Your task to perform on an android device: Go to ESPN.com Image 0: 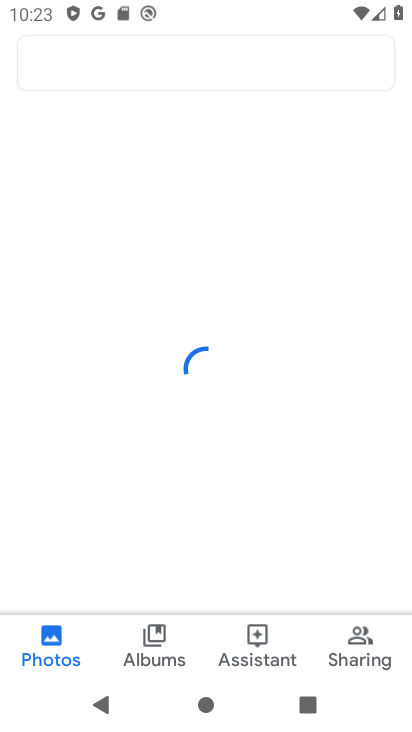
Step 0: press back button
Your task to perform on an android device: Go to ESPN.com Image 1: 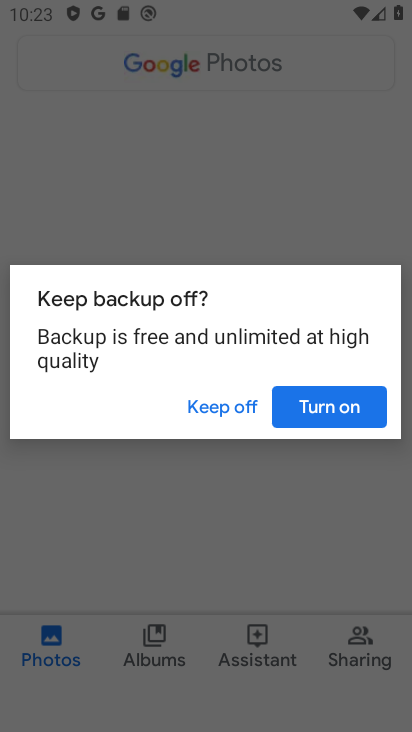
Step 1: press back button
Your task to perform on an android device: Go to ESPN.com Image 2: 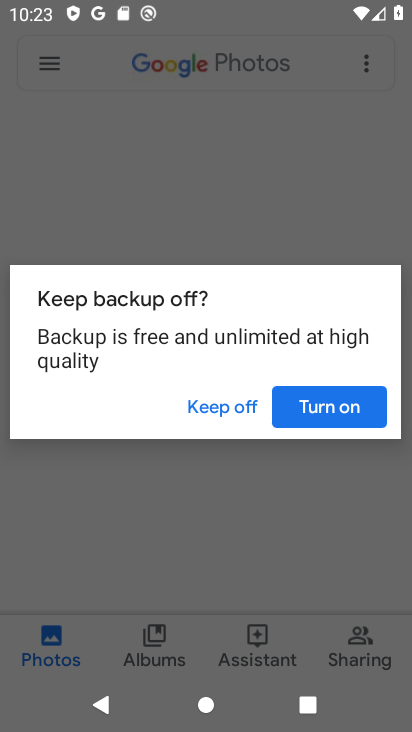
Step 2: press home button
Your task to perform on an android device: Go to ESPN.com Image 3: 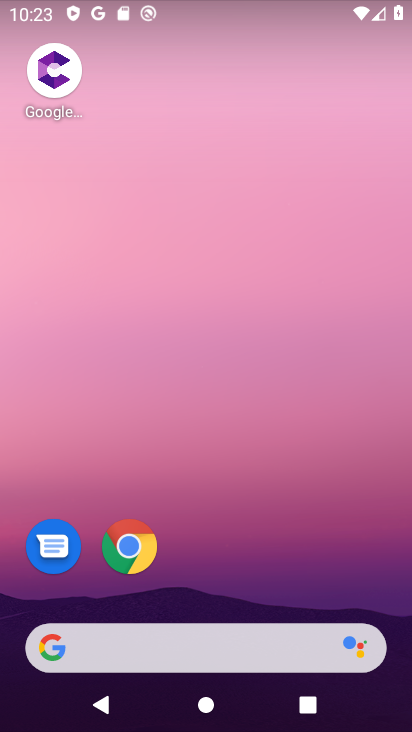
Step 3: drag from (261, 573) to (235, 11)
Your task to perform on an android device: Go to ESPN.com Image 4: 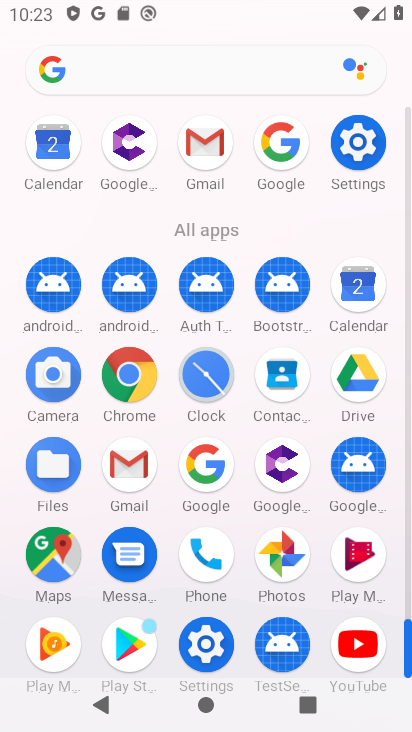
Step 4: click (130, 370)
Your task to perform on an android device: Go to ESPN.com Image 5: 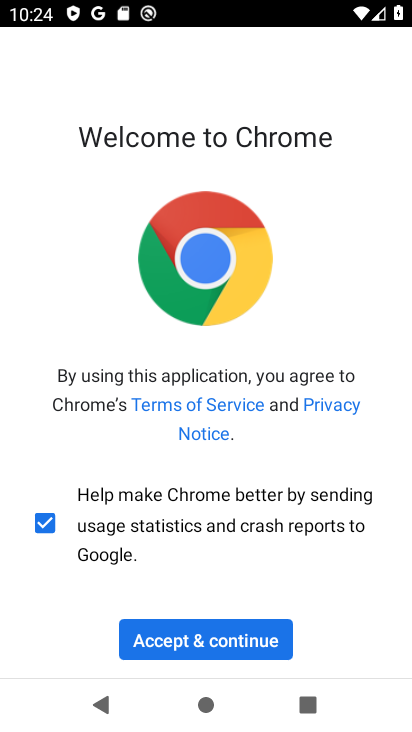
Step 5: click (182, 631)
Your task to perform on an android device: Go to ESPN.com Image 6: 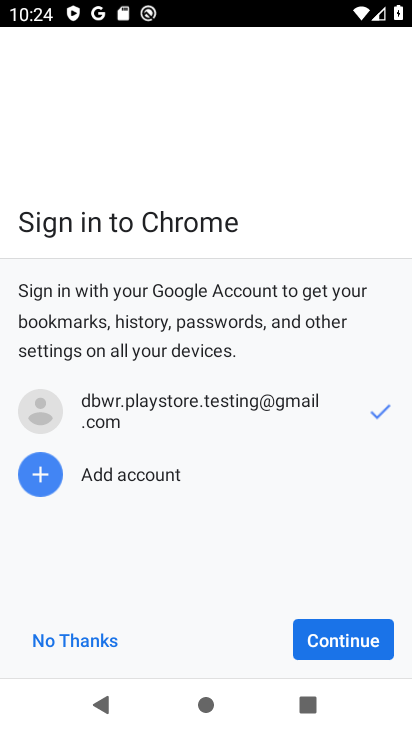
Step 6: click (302, 631)
Your task to perform on an android device: Go to ESPN.com Image 7: 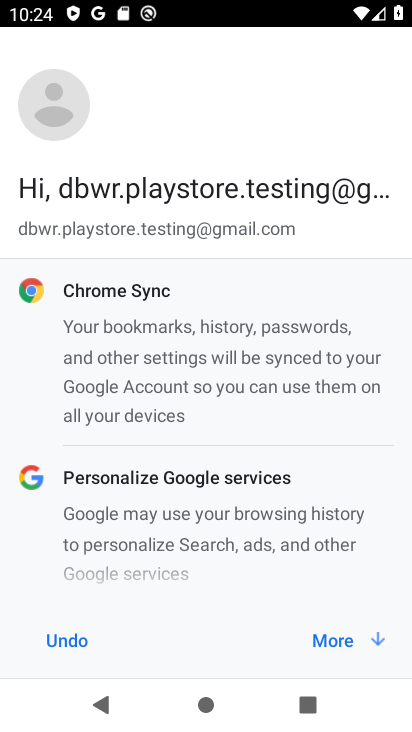
Step 7: click (338, 641)
Your task to perform on an android device: Go to ESPN.com Image 8: 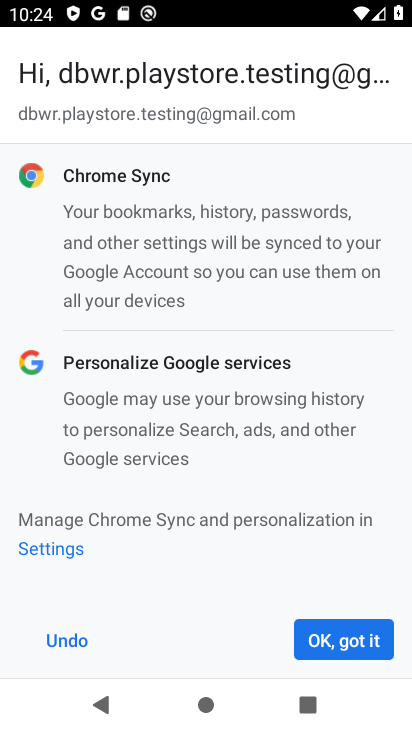
Step 8: click (343, 644)
Your task to perform on an android device: Go to ESPN.com Image 9: 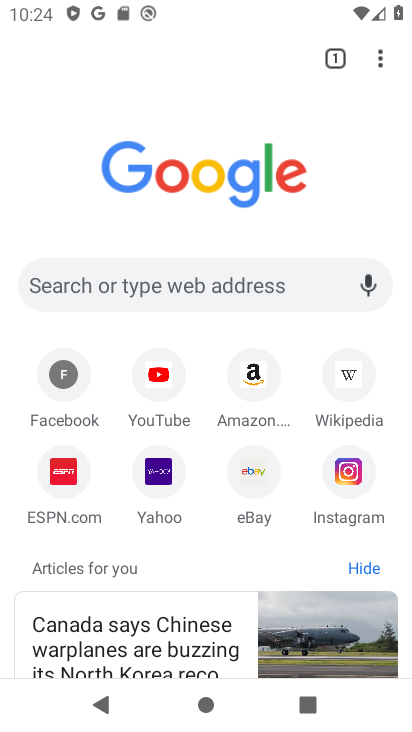
Step 9: click (62, 475)
Your task to perform on an android device: Go to ESPN.com Image 10: 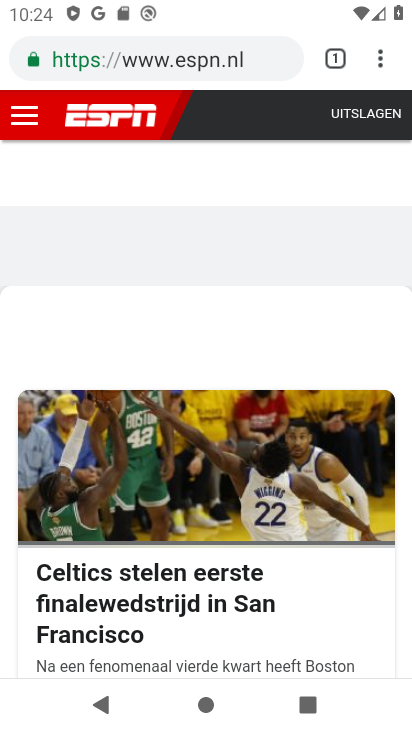
Step 10: drag from (306, 477) to (323, 237)
Your task to perform on an android device: Go to ESPN.com Image 11: 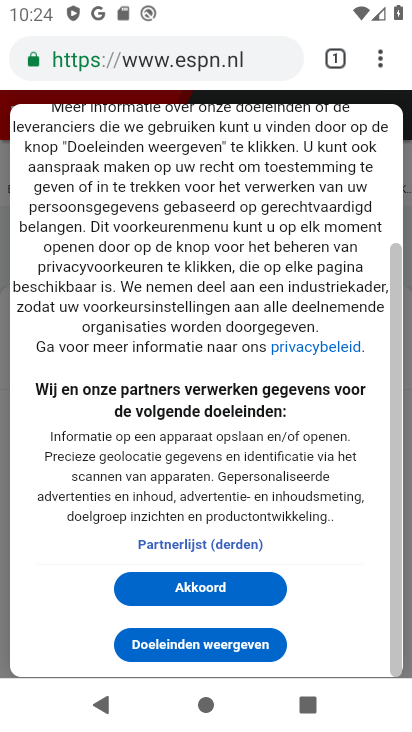
Step 11: click (253, 584)
Your task to perform on an android device: Go to ESPN.com Image 12: 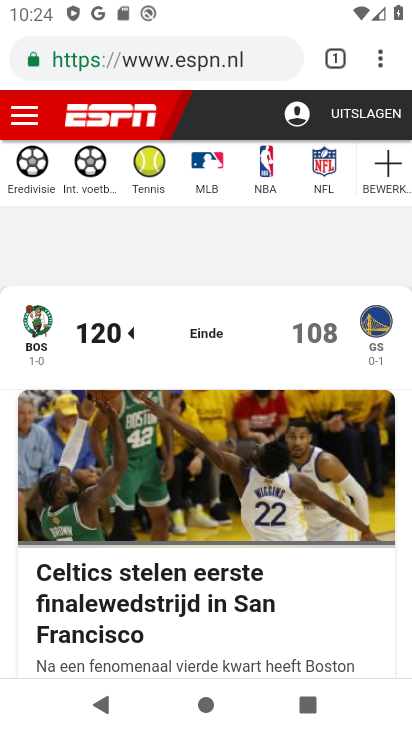
Step 12: task complete